Your task to perform on an android device: open chrome and create a bookmark for the current page Image 0: 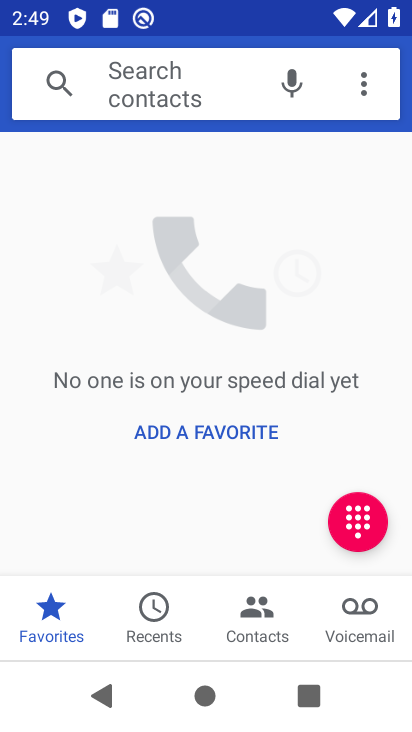
Step 0: press home button
Your task to perform on an android device: open chrome and create a bookmark for the current page Image 1: 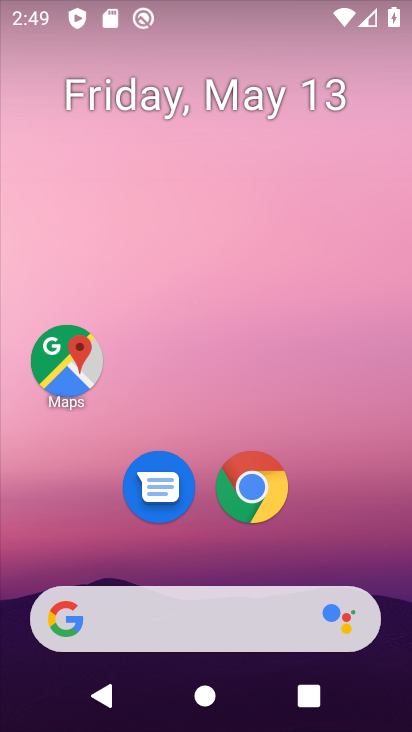
Step 1: drag from (367, 520) to (393, 112)
Your task to perform on an android device: open chrome and create a bookmark for the current page Image 2: 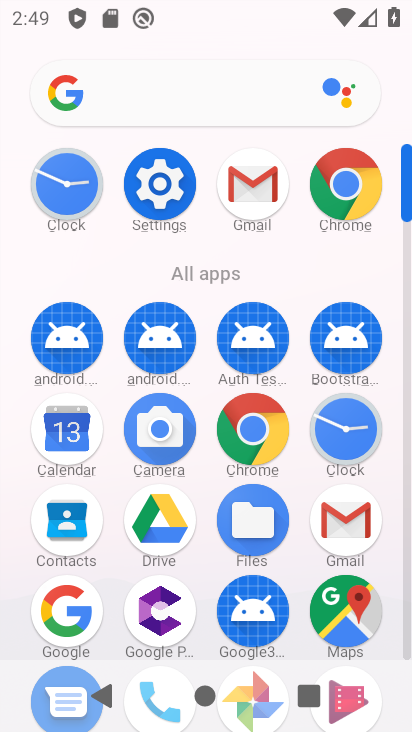
Step 2: click (357, 180)
Your task to perform on an android device: open chrome and create a bookmark for the current page Image 3: 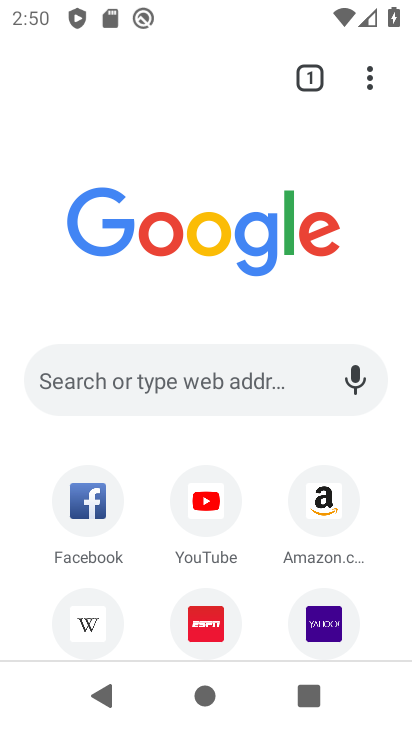
Step 3: task complete